Your task to perform on an android device: Open the calendar app, open the side menu, and click the "Day" option Image 0: 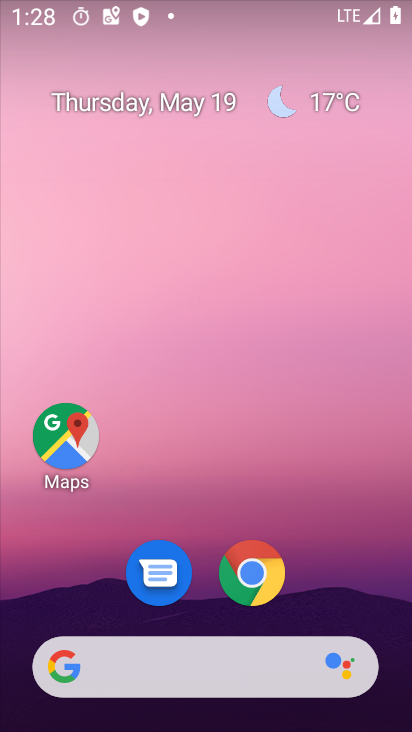
Step 0: drag from (203, 601) to (280, 86)
Your task to perform on an android device: Open the calendar app, open the side menu, and click the "Day" option Image 1: 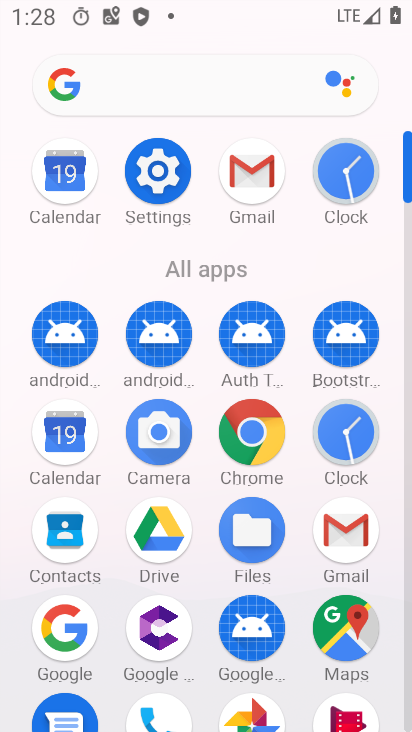
Step 1: click (53, 430)
Your task to perform on an android device: Open the calendar app, open the side menu, and click the "Day" option Image 2: 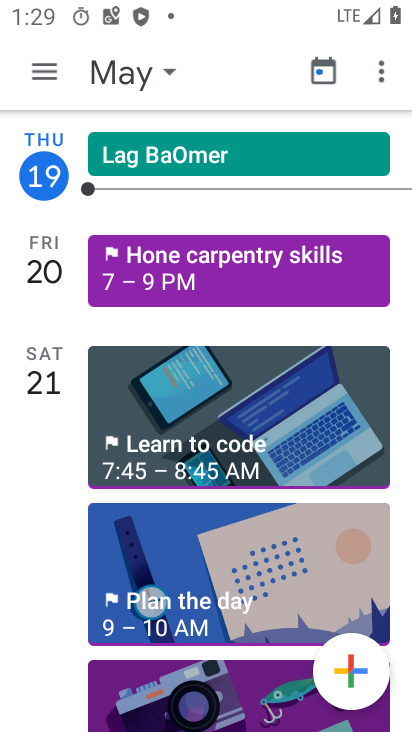
Step 2: click (35, 67)
Your task to perform on an android device: Open the calendar app, open the side menu, and click the "Day" option Image 3: 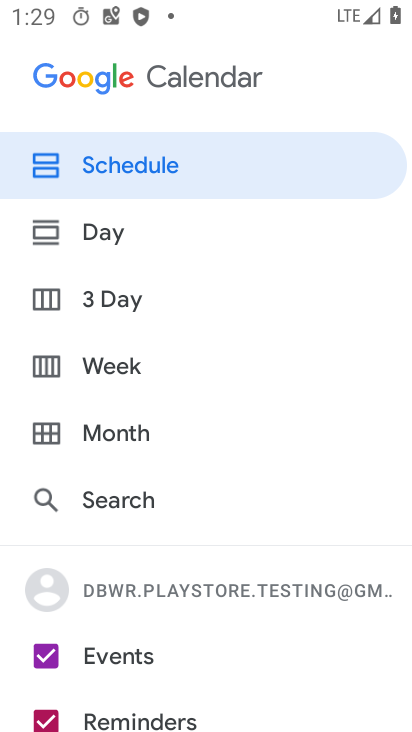
Step 3: click (123, 240)
Your task to perform on an android device: Open the calendar app, open the side menu, and click the "Day" option Image 4: 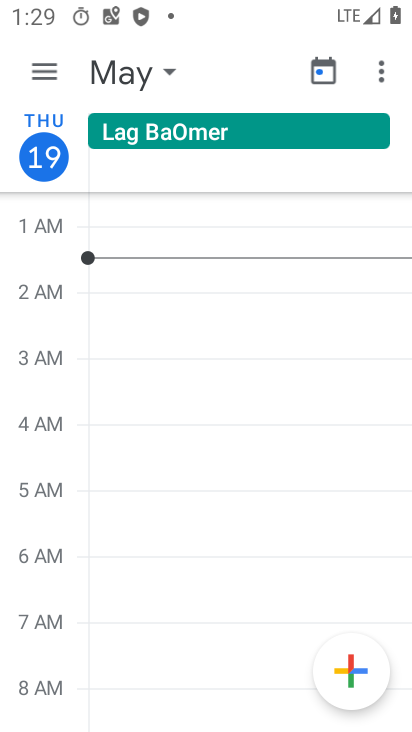
Step 4: task complete